Your task to perform on an android device: turn on javascript in the chrome app Image 0: 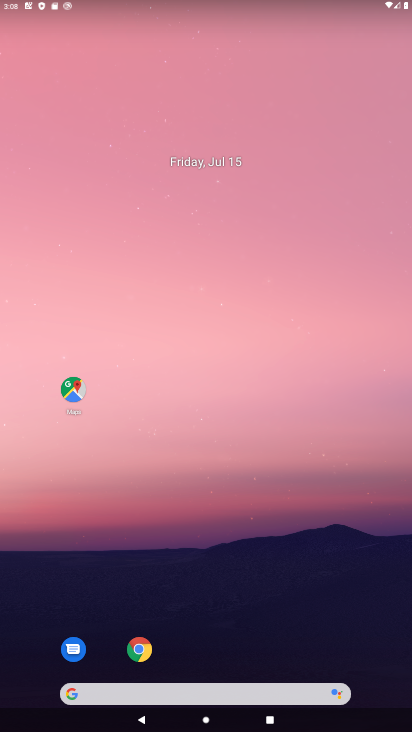
Step 0: drag from (301, 501) to (304, 156)
Your task to perform on an android device: turn on javascript in the chrome app Image 1: 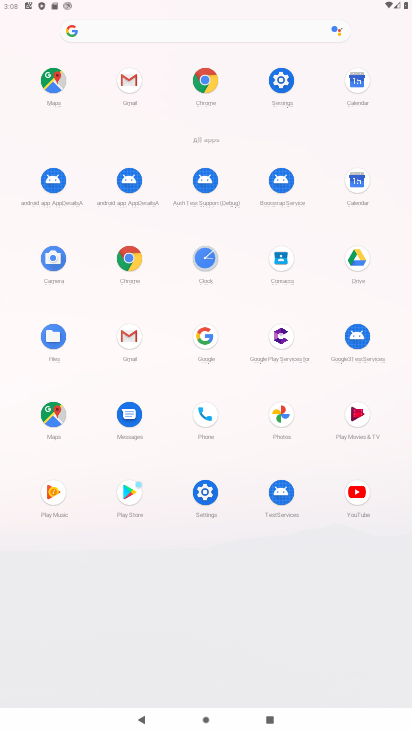
Step 1: click (129, 259)
Your task to perform on an android device: turn on javascript in the chrome app Image 2: 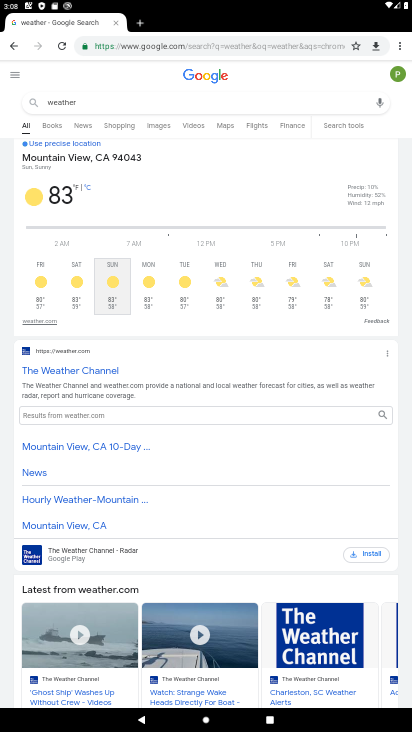
Step 2: drag from (399, 46) to (300, 278)
Your task to perform on an android device: turn on javascript in the chrome app Image 3: 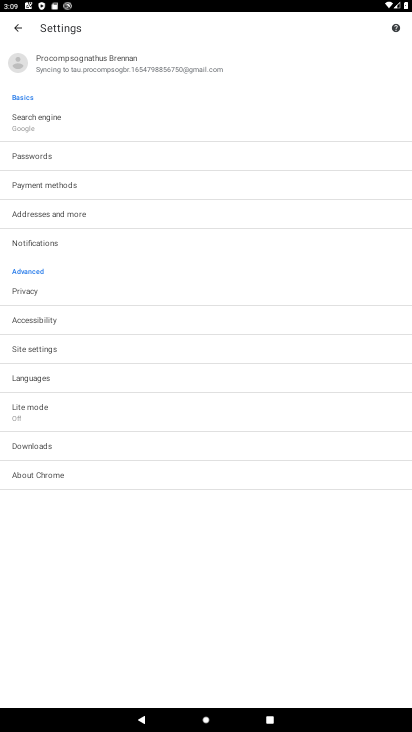
Step 3: click (76, 349)
Your task to perform on an android device: turn on javascript in the chrome app Image 4: 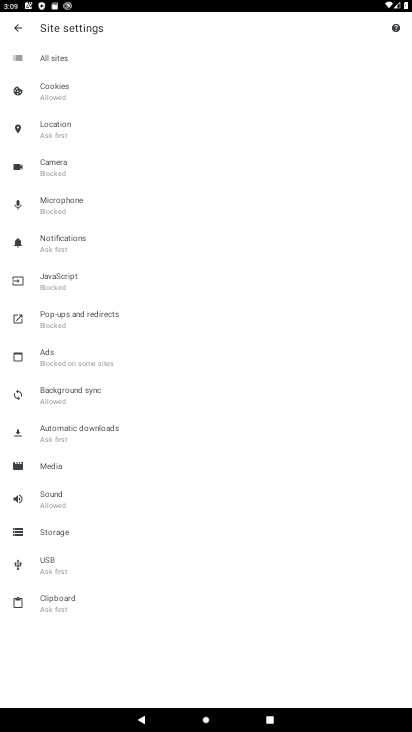
Step 4: click (65, 280)
Your task to perform on an android device: turn on javascript in the chrome app Image 5: 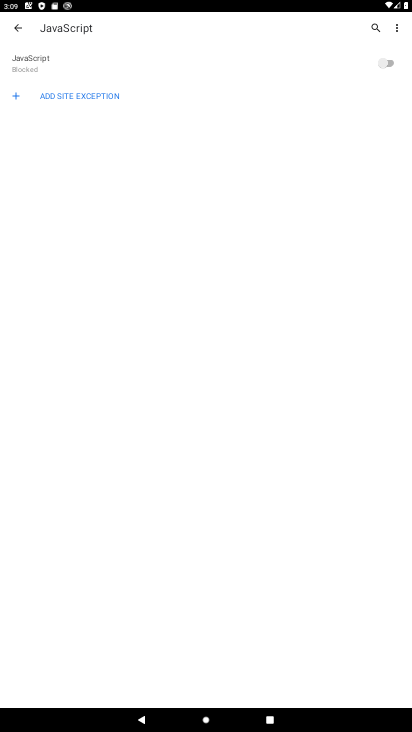
Step 5: click (378, 65)
Your task to perform on an android device: turn on javascript in the chrome app Image 6: 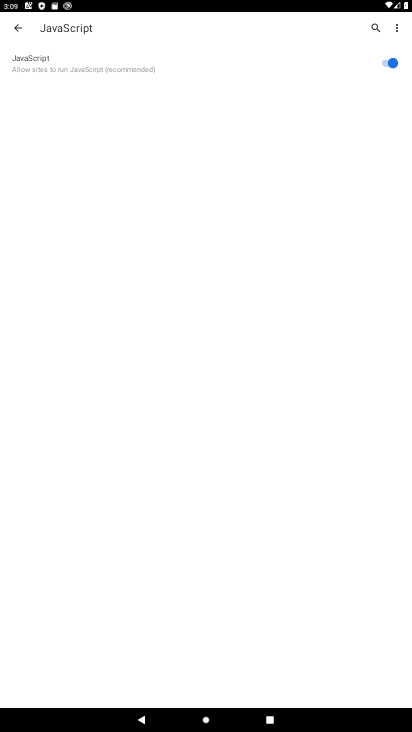
Step 6: task complete